Your task to perform on an android device: see sites visited before in the chrome app Image 0: 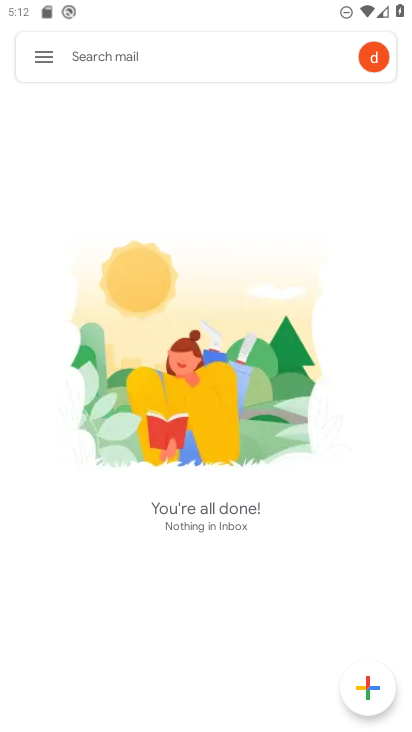
Step 0: press home button
Your task to perform on an android device: see sites visited before in the chrome app Image 1: 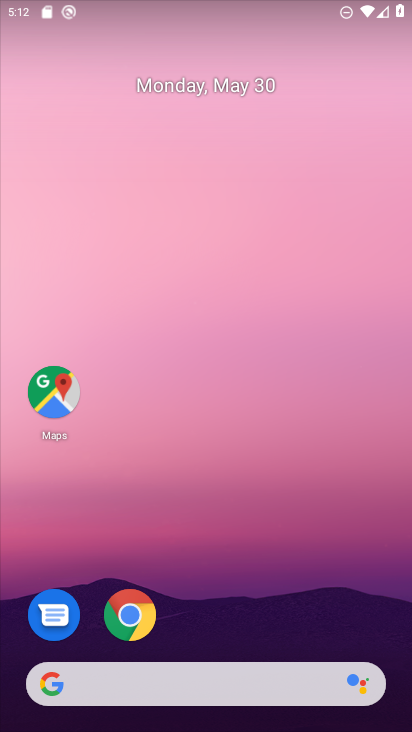
Step 1: click (136, 619)
Your task to perform on an android device: see sites visited before in the chrome app Image 2: 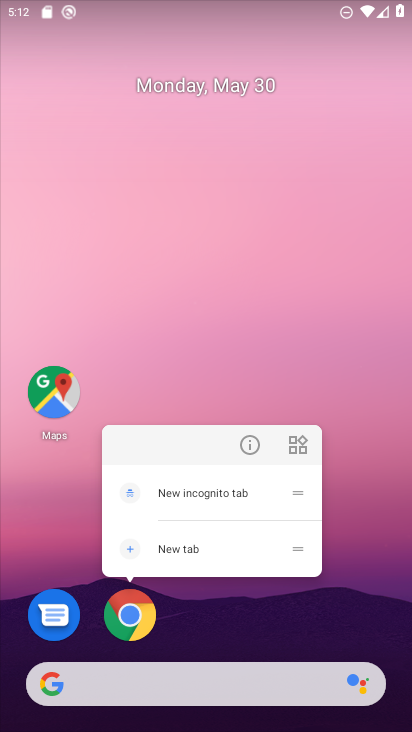
Step 2: click (181, 550)
Your task to perform on an android device: see sites visited before in the chrome app Image 3: 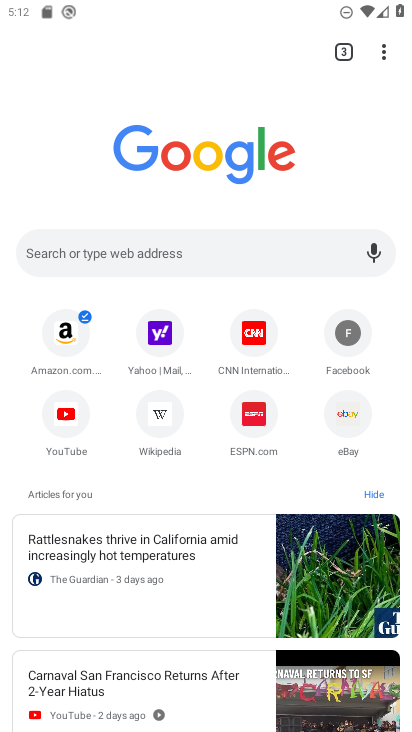
Step 3: click (390, 48)
Your task to perform on an android device: see sites visited before in the chrome app Image 4: 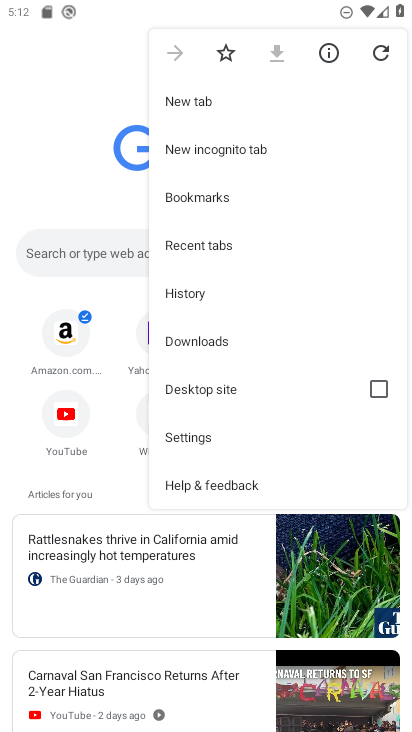
Step 4: click (202, 240)
Your task to perform on an android device: see sites visited before in the chrome app Image 5: 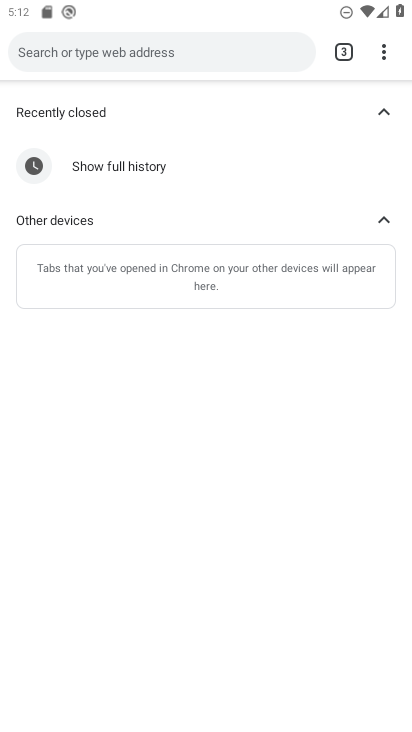
Step 5: task complete